Your task to perform on an android device: see creations saved in the google photos Image 0: 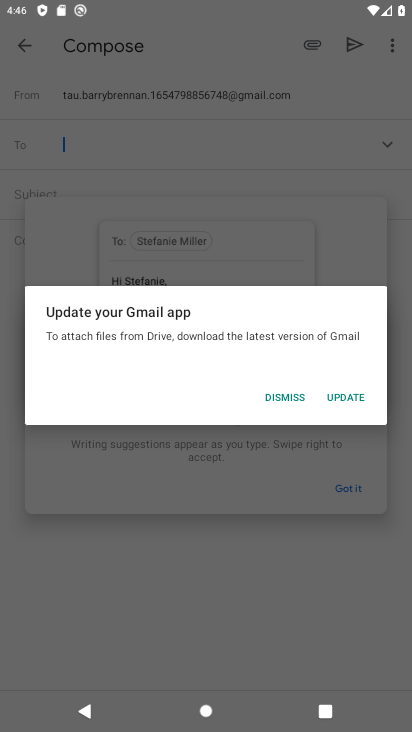
Step 0: click (275, 395)
Your task to perform on an android device: see creations saved in the google photos Image 1: 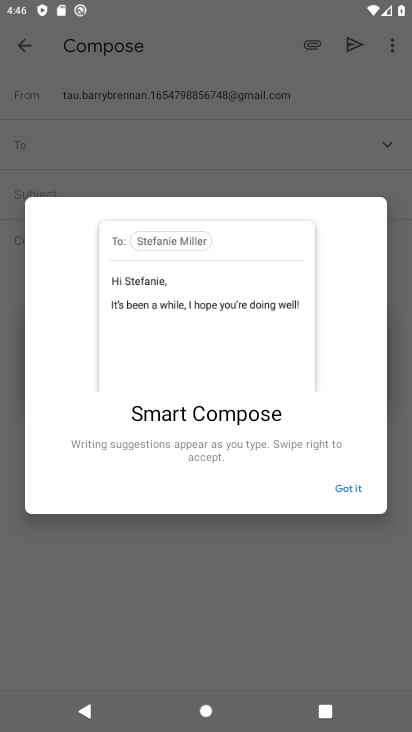
Step 1: press back button
Your task to perform on an android device: see creations saved in the google photos Image 2: 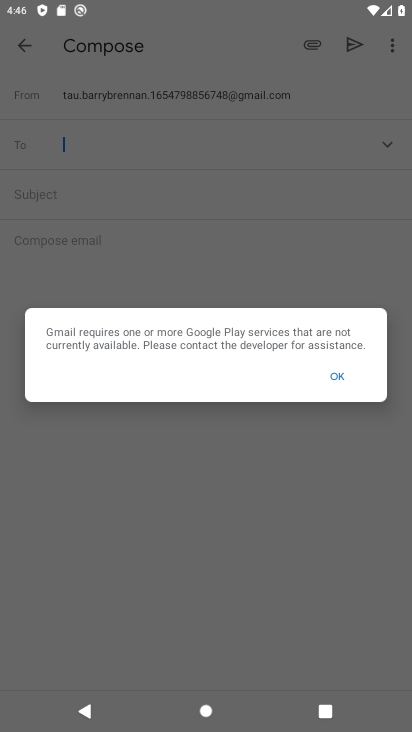
Step 2: press back button
Your task to perform on an android device: see creations saved in the google photos Image 3: 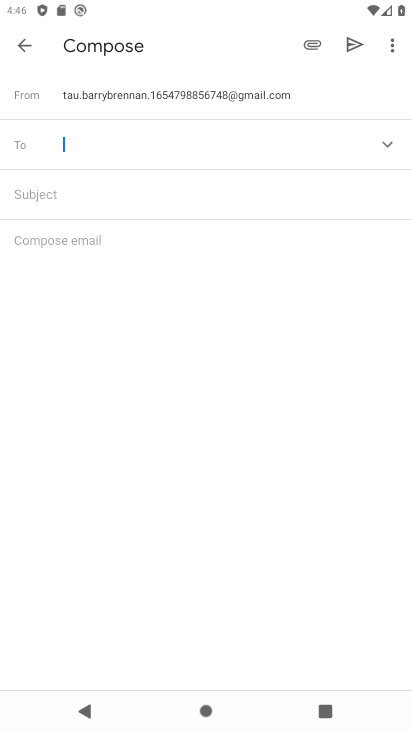
Step 3: press back button
Your task to perform on an android device: see creations saved in the google photos Image 4: 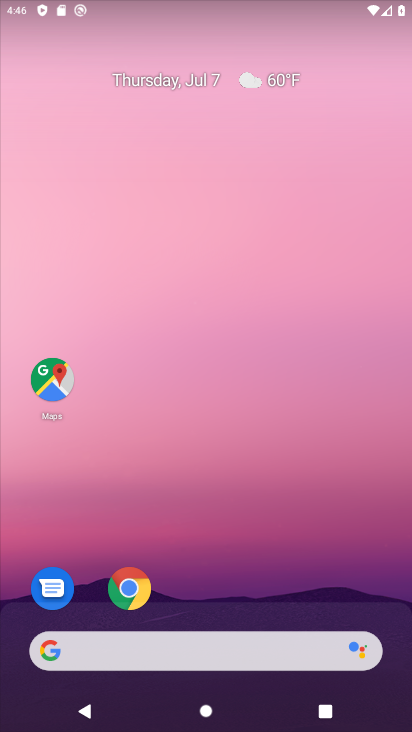
Step 4: drag from (234, 591) to (261, 9)
Your task to perform on an android device: see creations saved in the google photos Image 5: 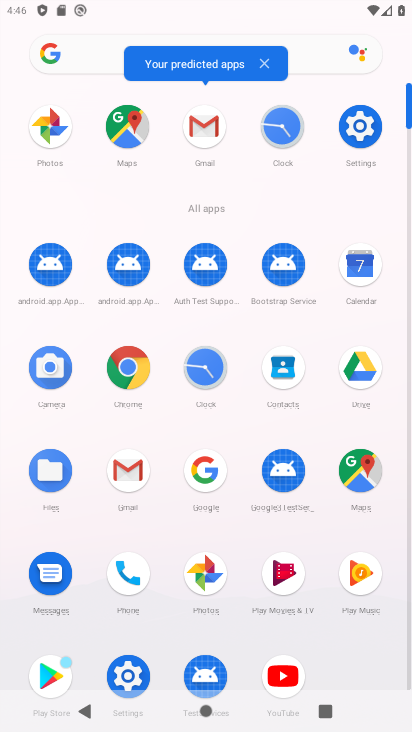
Step 5: click (200, 567)
Your task to perform on an android device: see creations saved in the google photos Image 6: 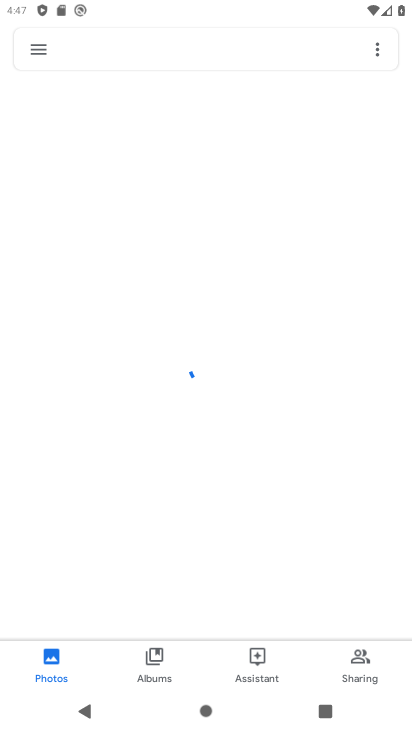
Step 6: click (47, 53)
Your task to perform on an android device: see creations saved in the google photos Image 7: 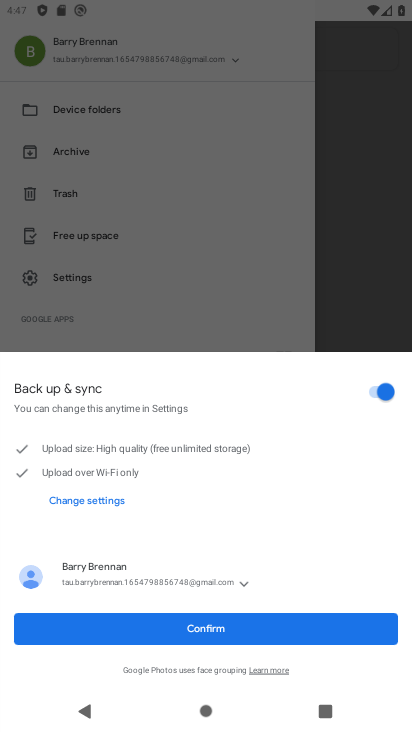
Step 7: click (203, 621)
Your task to perform on an android device: see creations saved in the google photos Image 8: 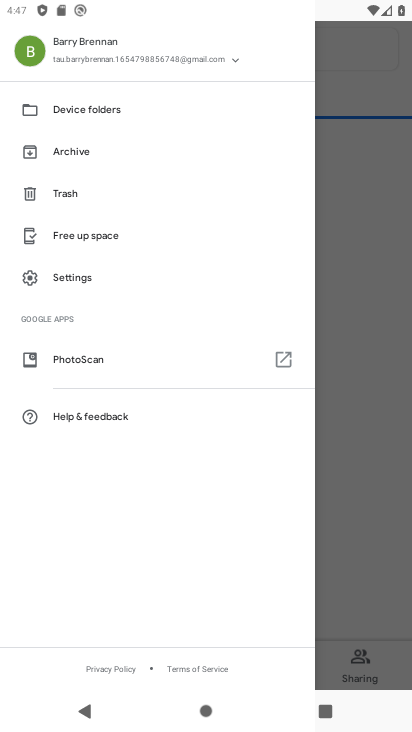
Step 8: task complete